Your task to perform on an android device: View the shopping cart on newegg.com. Search for "bose quietcomfort 35" on newegg.com, select the first entry, and add it to the cart. Image 0: 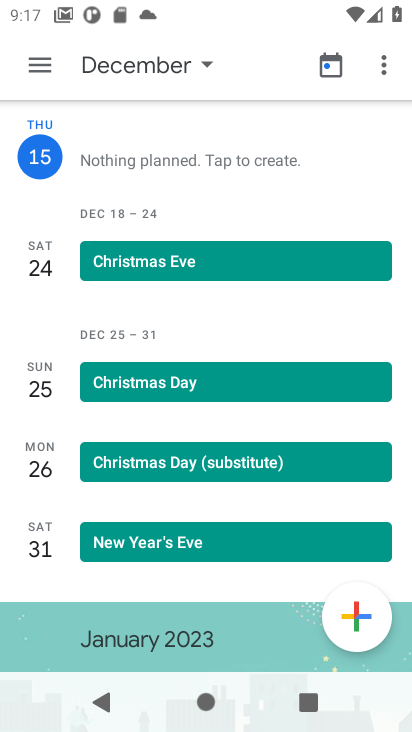
Step 0: press home button
Your task to perform on an android device: View the shopping cart on newegg.com. Search for "bose quietcomfort 35" on newegg.com, select the first entry, and add it to the cart. Image 1: 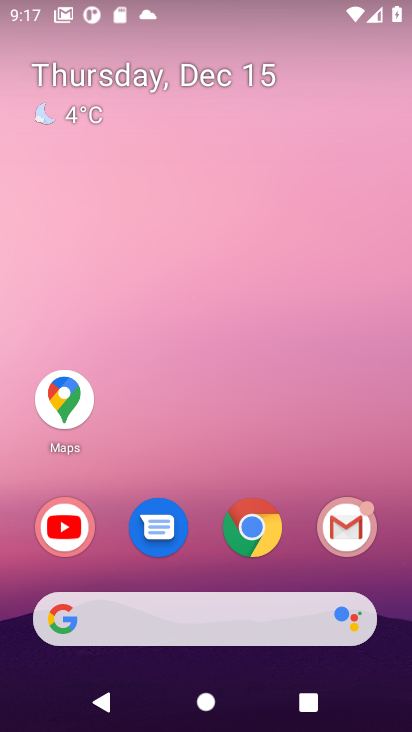
Step 1: click (236, 515)
Your task to perform on an android device: View the shopping cart on newegg.com. Search for "bose quietcomfort 35" on newegg.com, select the first entry, and add it to the cart. Image 2: 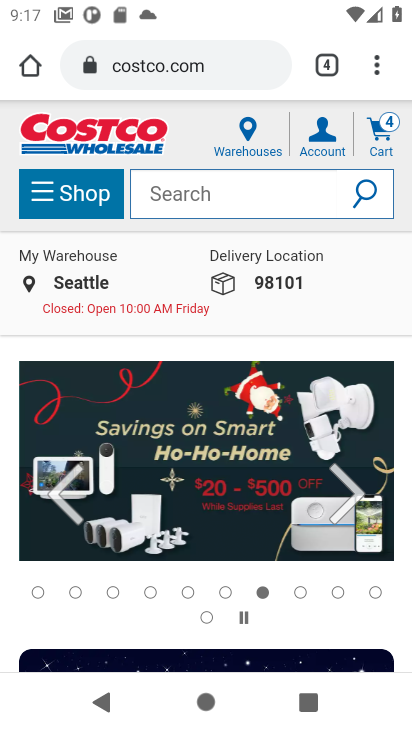
Step 2: click (193, 186)
Your task to perform on an android device: View the shopping cart on newegg.com. Search for "bose quietcomfort 35" on newegg.com, select the first entry, and add it to the cart. Image 3: 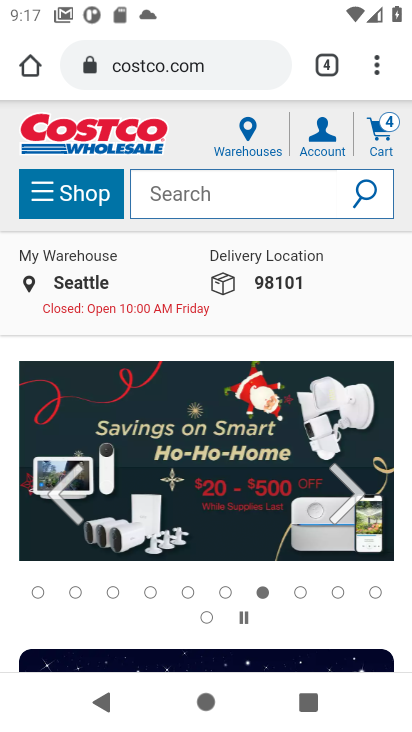
Step 3: click (193, 186)
Your task to perform on an android device: View the shopping cart on newegg.com. Search for "bose quietcomfort 35" on newegg.com, select the first entry, and add it to the cart. Image 4: 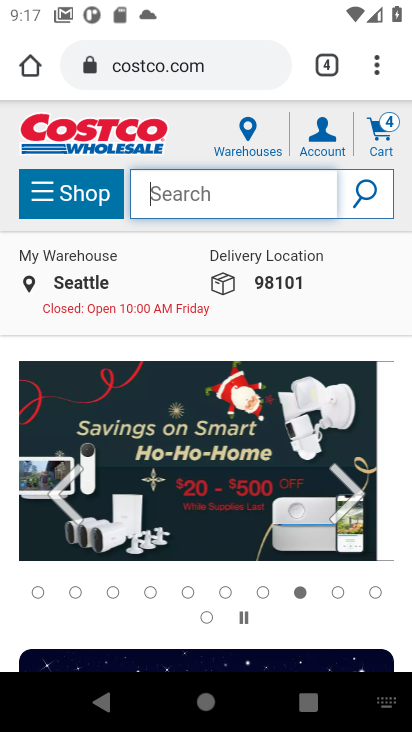
Step 4: click (174, 67)
Your task to perform on an android device: View the shopping cart on newegg.com. Search for "bose quietcomfort 35" on newegg.com, select the first entry, and add it to the cart. Image 5: 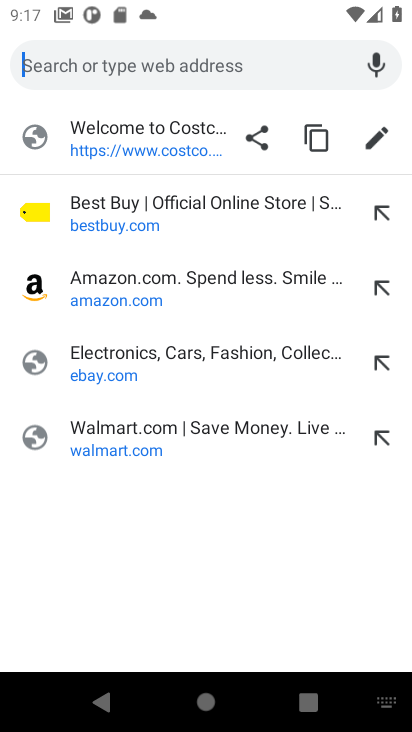
Step 5: type "newegg"
Your task to perform on an android device: View the shopping cart on newegg.com. Search for "bose quietcomfort 35" on newegg.com, select the first entry, and add it to the cart. Image 6: 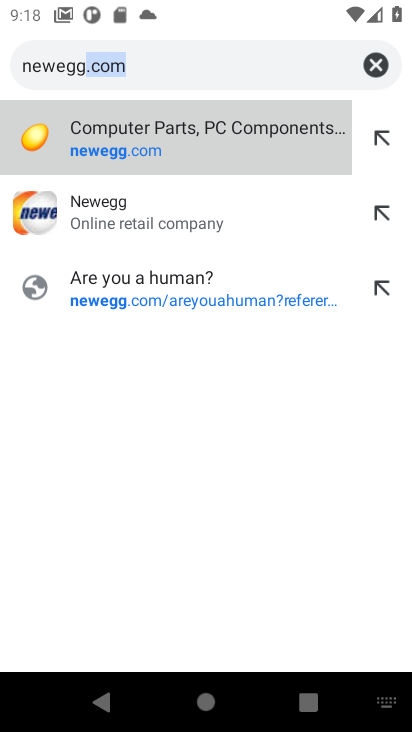
Step 6: click (176, 152)
Your task to perform on an android device: View the shopping cart on newegg.com. Search for "bose quietcomfort 35" on newegg.com, select the first entry, and add it to the cart. Image 7: 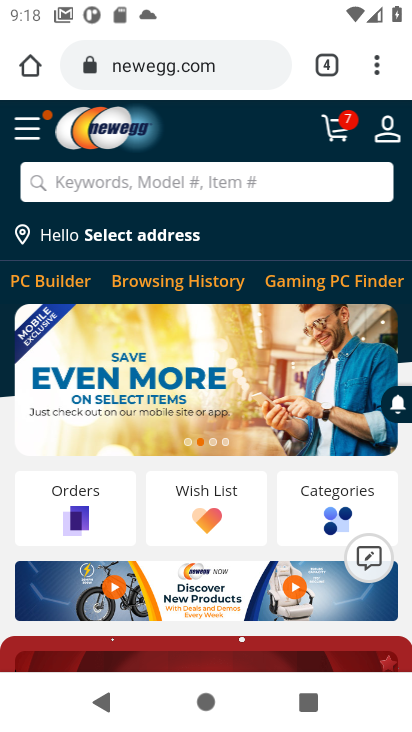
Step 7: click (190, 194)
Your task to perform on an android device: View the shopping cart on newegg.com. Search for "bose quietcomfort 35" on newegg.com, select the first entry, and add it to the cart. Image 8: 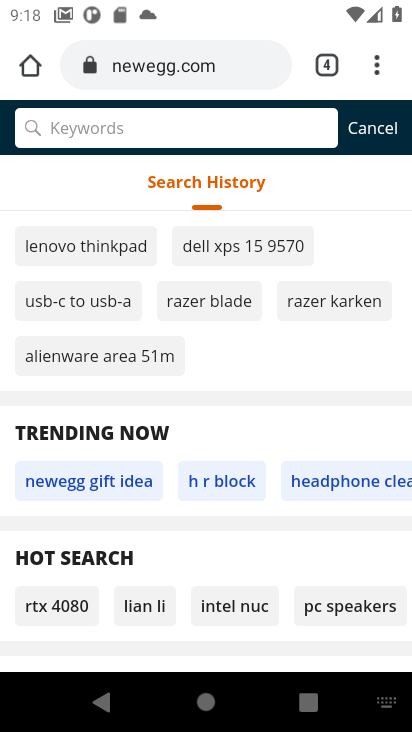
Step 8: type "bose quiecomfort 35"
Your task to perform on an android device: View the shopping cart on newegg.com. Search for "bose quietcomfort 35" on newegg.com, select the first entry, and add it to the cart. Image 9: 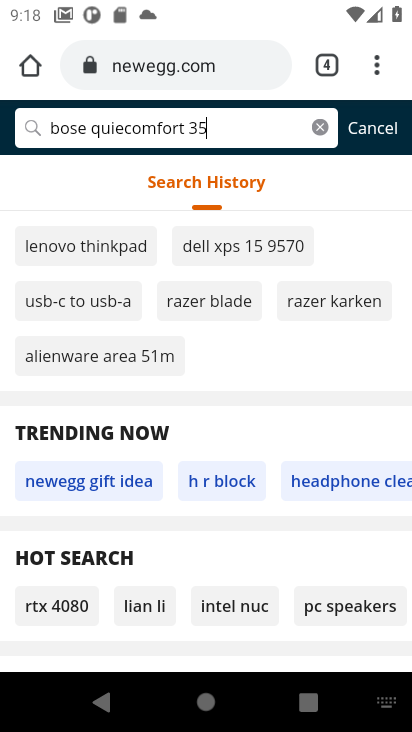
Step 9: task complete